Your task to perform on an android device: Open notification settings Image 0: 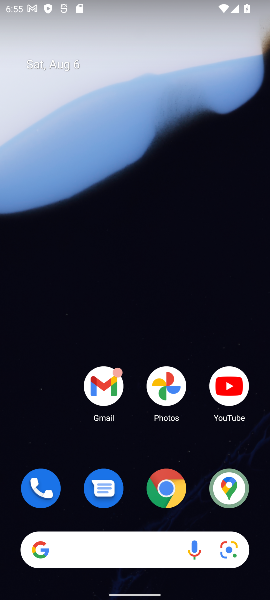
Step 0: press home button
Your task to perform on an android device: Open notification settings Image 1: 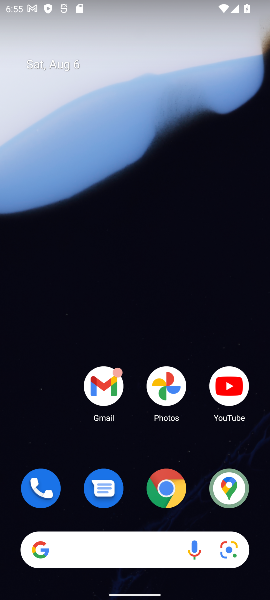
Step 1: drag from (255, 425) to (21, 428)
Your task to perform on an android device: Open notification settings Image 2: 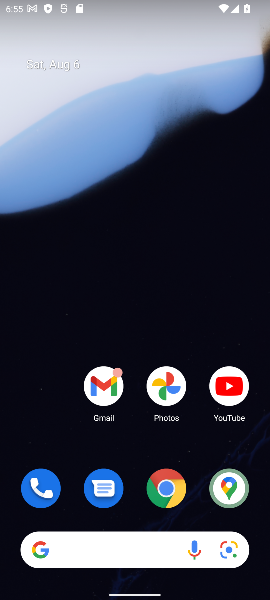
Step 2: drag from (138, 450) to (136, 191)
Your task to perform on an android device: Open notification settings Image 3: 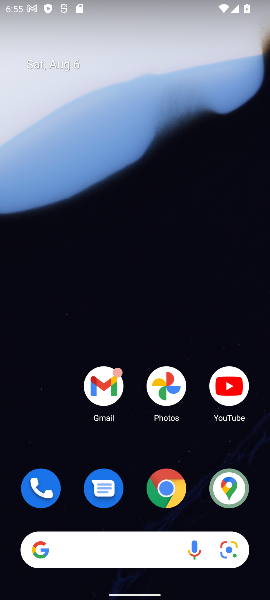
Step 3: drag from (137, 517) to (98, 5)
Your task to perform on an android device: Open notification settings Image 4: 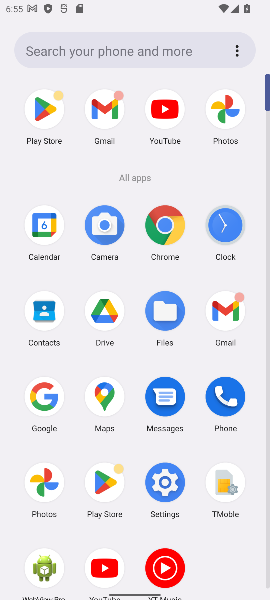
Step 4: click (157, 480)
Your task to perform on an android device: Open notification settings Image 5: 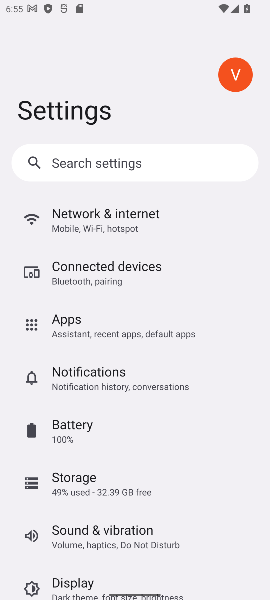
Step 5: drag from (171, 535) to (170, 296)
Your task to perform on an android device: Open notification settings Image 6: 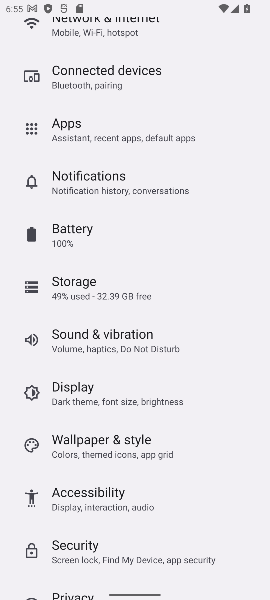
Step 6: drag from (198, 519) to (190, 266)
Your task to perform on an android device: Open notification settings Image 7: 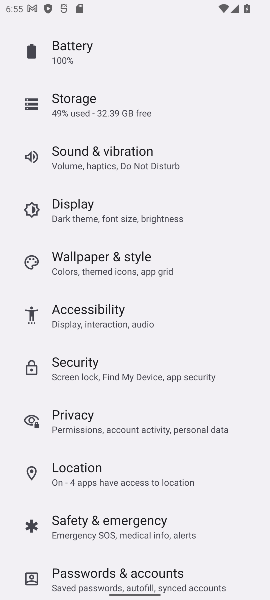
Step 7: drag from (215, 537) to (186, 235)
Your task to perform on an android device: Open notification settings Image 8: 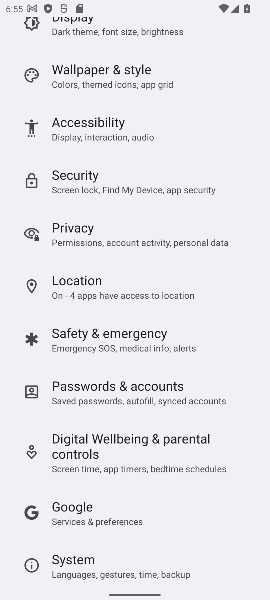
Step 8: drag from (217, 569) to (193, 178)
Your task to perform on an android device: Open notification settings Image 9: 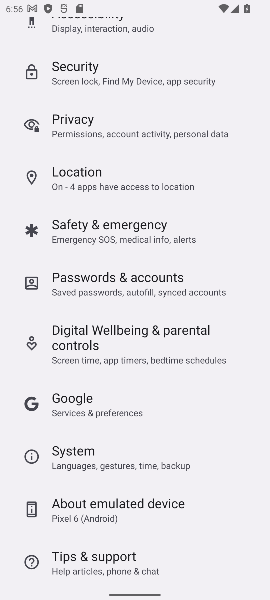
Step 9: drag from (234, 83) to (191, 583)
Your task to perform on an android device: Open notification settings Image 10: 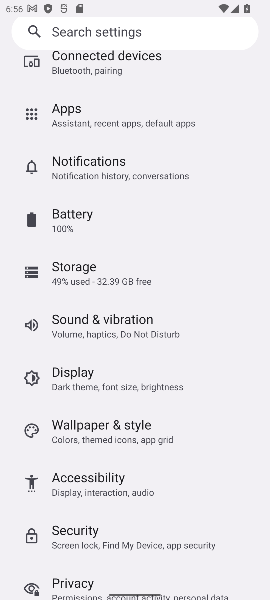
Step 10: drag from (232, 118) to (216, 519)
Your task to perform on an android device: Open notification settings Image 11: 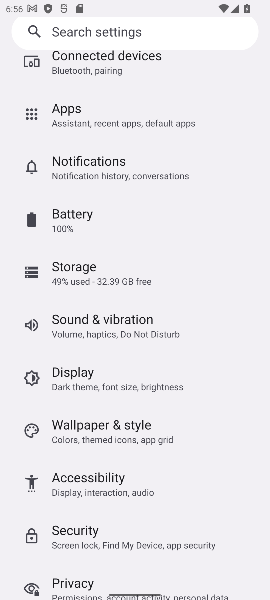
Step 11: drag from (230, 96) to (252, 476)
Your task to perform on an android device: Open notification settings Image 12: 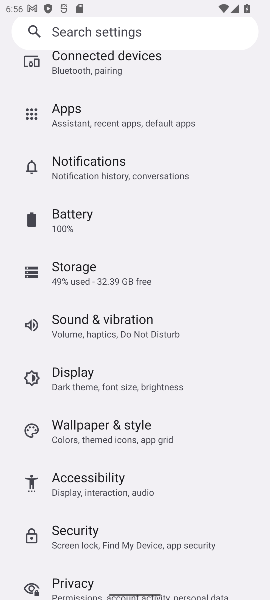
Step 12: drag from (227, 63) to (229, 423)
Your task to perform on an android device: Open notification settings Image 13: 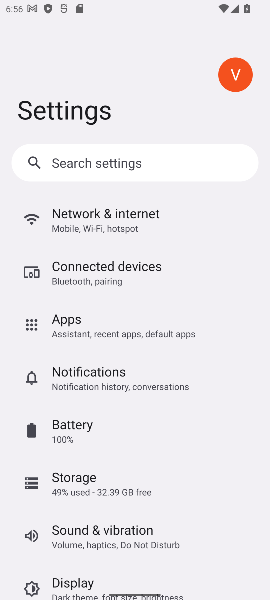
Step 13: click (78, 368)
Your task to perform on an android device: Open notification settings Image 14: 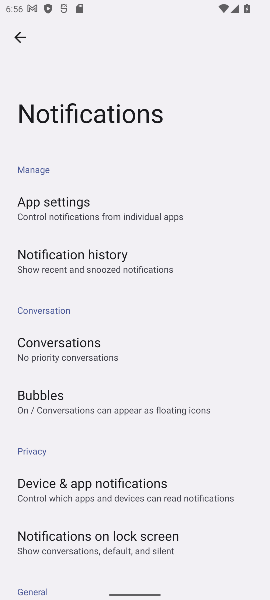
Step 14: task complete